Your task to perform on an android device: Is it going to rain today? Image 0: 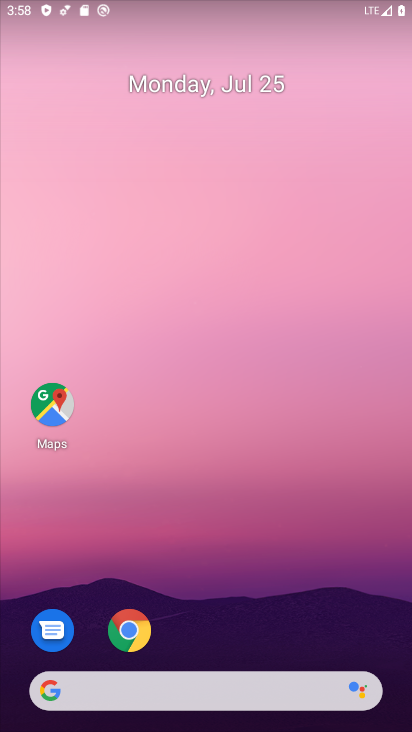
Step 0: drag from (238, 630) to (204, 64)
Your task to perform on an android device: Is it going to rain today? Image 1: 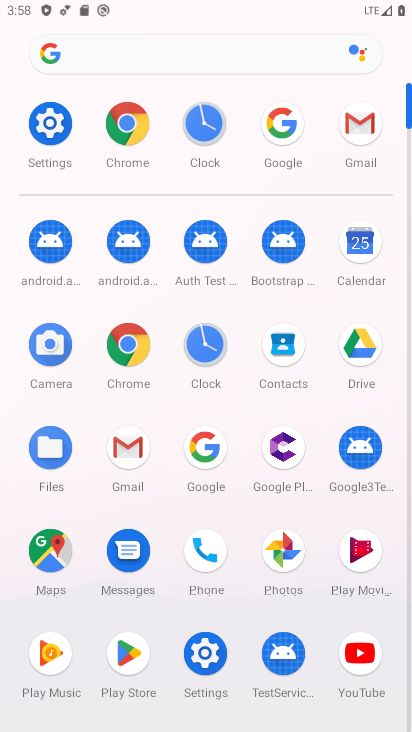
Step 1: click (117, 123)
Your task to perform on an android device: Is it going to rain today? Image 2: 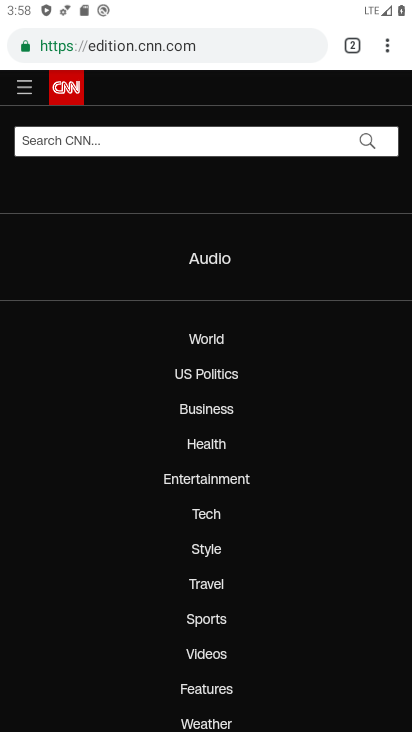
Step 2: click (184, 41)
Your task to perform on an android device: Is it going to rain today? Image 3: 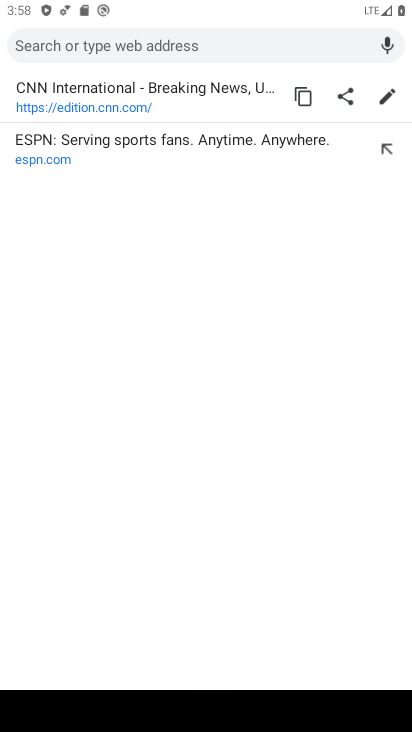
Step 3: type "Is it going to rain today?"
Your task to perform on an android device: Is it going to rain today? Image 4: 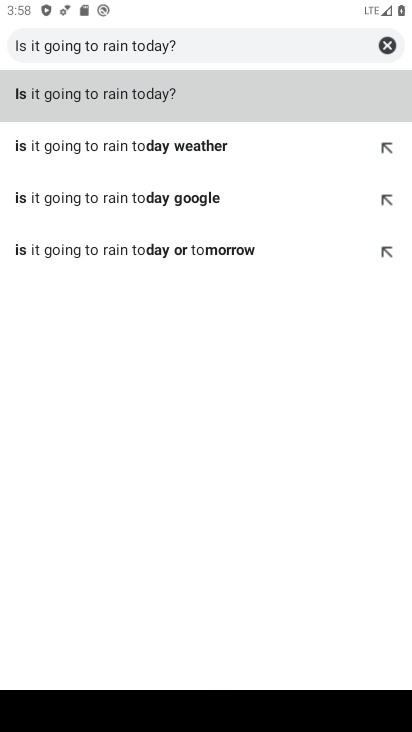
Step 4: click (248, 105)
Your task to perform on an android device: Is it going to rain today? Image 5: 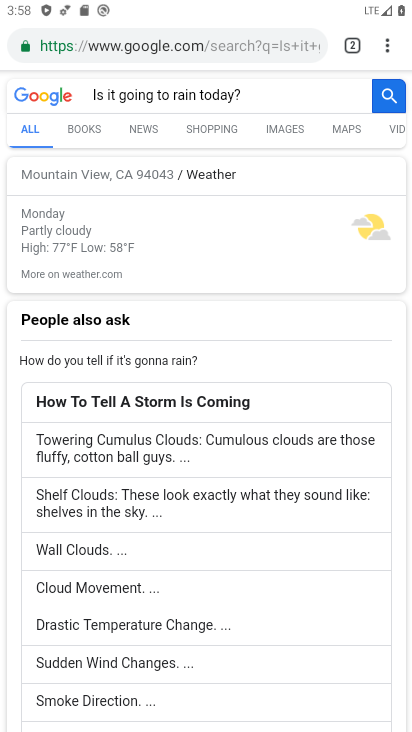
Step 5: task complete